Your task to perform on an android device: Open Youtube and go to the subscriptions tab Image 0: 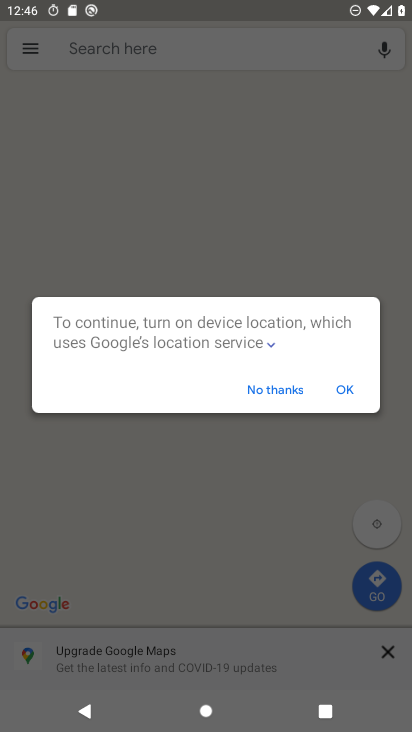
Step 0: press home button
Your task to perform on an android device: Open Youtube and go to the subscriptions tab Image 1: 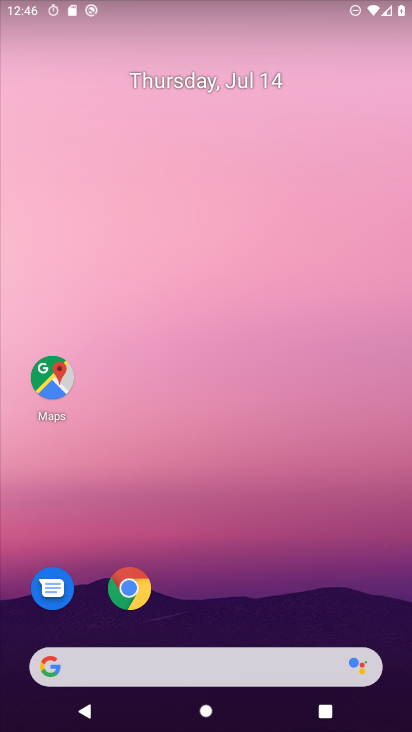
Step 1: drag from (215, 663) to (356, 38)
Your task to perform on an android device: Open Youtube and go to the subscriptions tab Image 2: 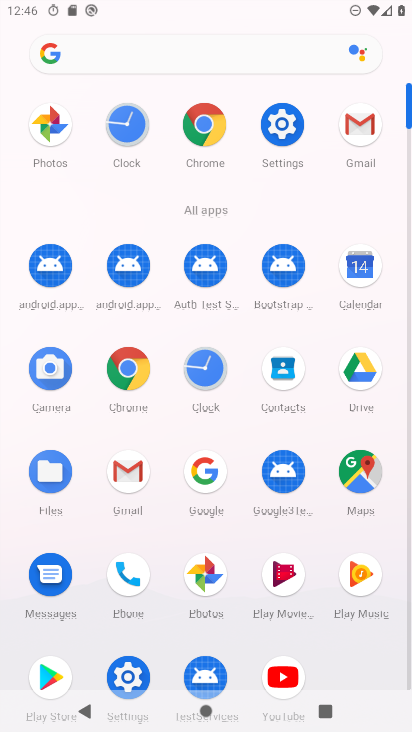
Step 2: click (286, 677)
Your task to perform on an android device: Open Youtube and go to the subscriptions tab Image 3: 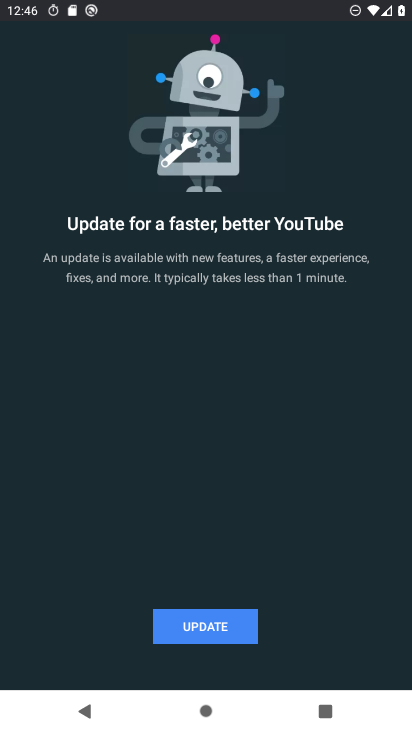
Step 3: click (197, 632)
Your task to perform on an android device: Open Youtube and go to the subscriptions tab Image 4: 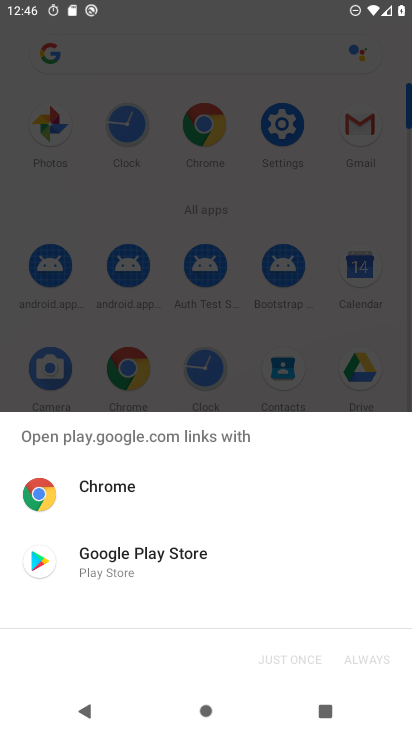
Step 4: click (151, 551)
Your task to perform on an android device: Open Youtube and go to the subscriptions tab Image 5: 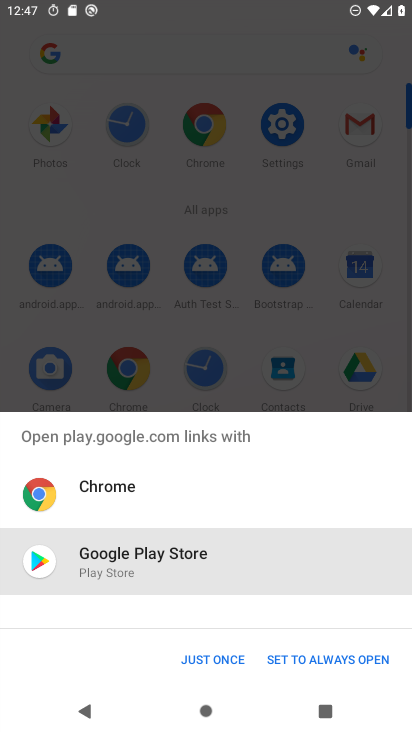
Step 5: click (202, 656)
Your task to perform on an android device: Open Youtube and go to the subscriptions tab Image 6: 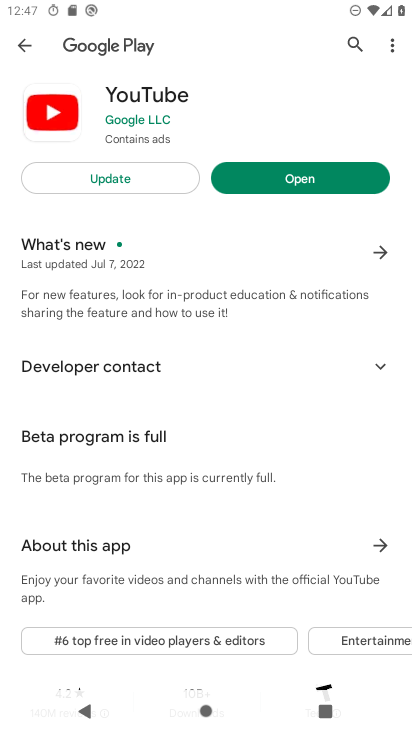
Step 6: click (112, 175)
Your task to perform on an android device: Open Youtube and go to the subscriptions tab Image 7: 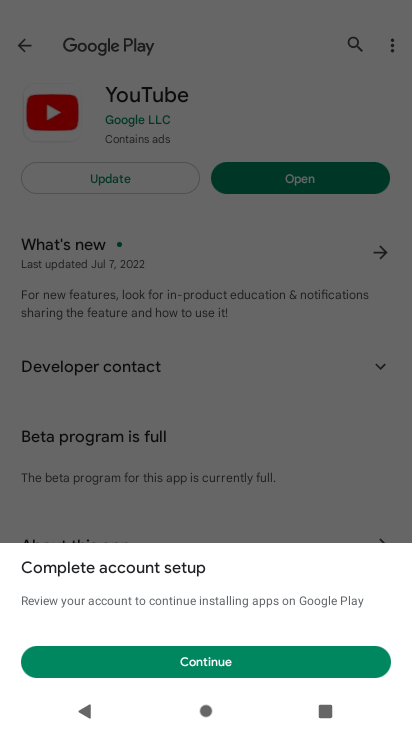
Step 7: click (112, 178)
Your task to perform on an android device: Open Youtube and go to the subscriptions tab Image 8: 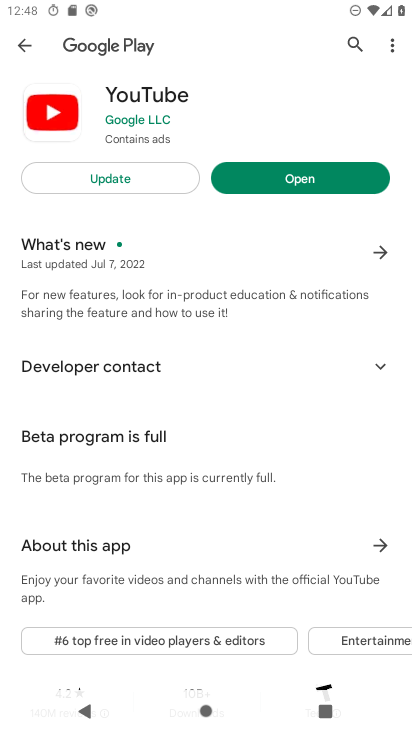
Step 8: click (311, 184)
Your task to perform on an android device: Open Youtube and go to the subscriptions tab Image 9: 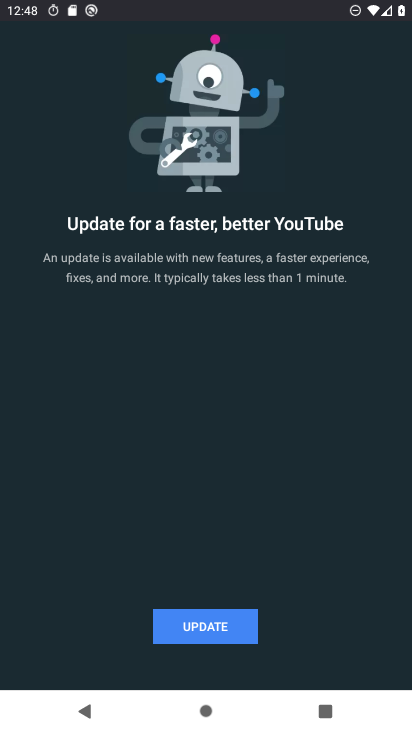
Step 9: click (224, 617)
Your task to perform on an android device: Open Youtube and go to the subscriptions tab Image 10: 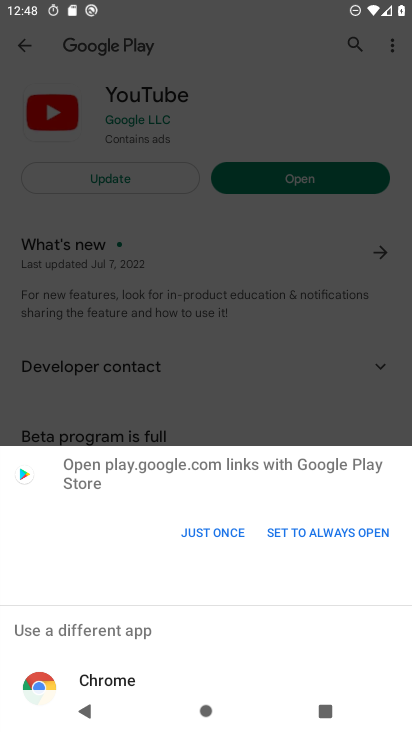
Step 10: click (220, 528)
Your task to perform on an android device: Open Youtube and go to the subscriptions tab Image 11: 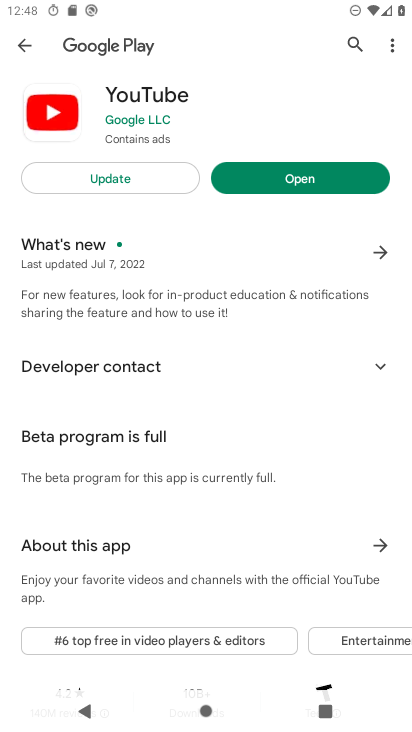
Step 11: click (104, 175)
Your task to perform on an android device: Open Youtube and go to the subscriptions tab Image 12: 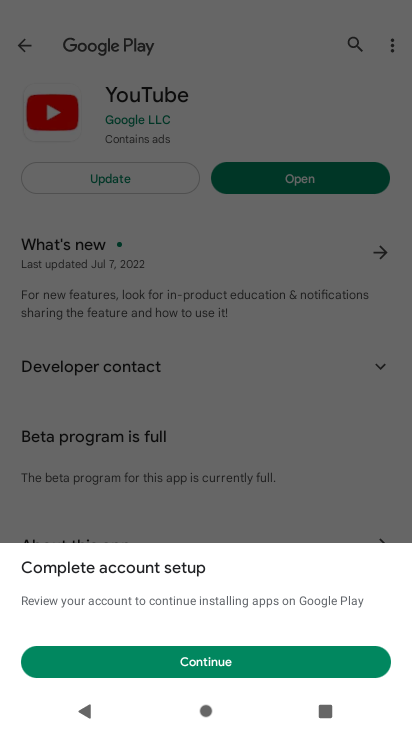
Step 12: click (247, 664)
Your task to perform on an android device: Open Youtube and go to the subscriptions tab Image 13: 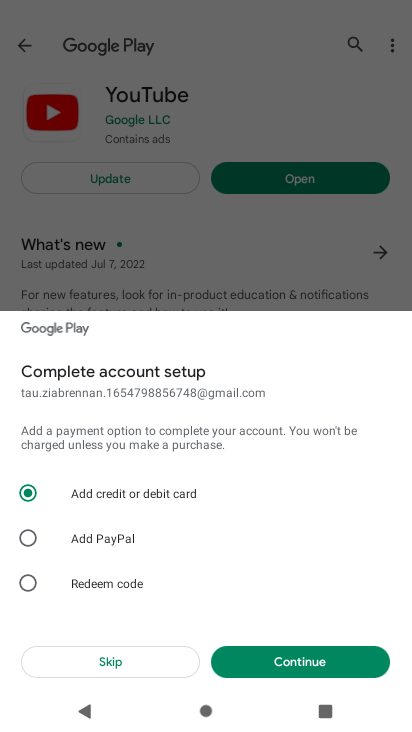
Step 13: click (101, 657)
Your task to perform on an android device: Open Youtube and go to the subscriptions tab Image 14: 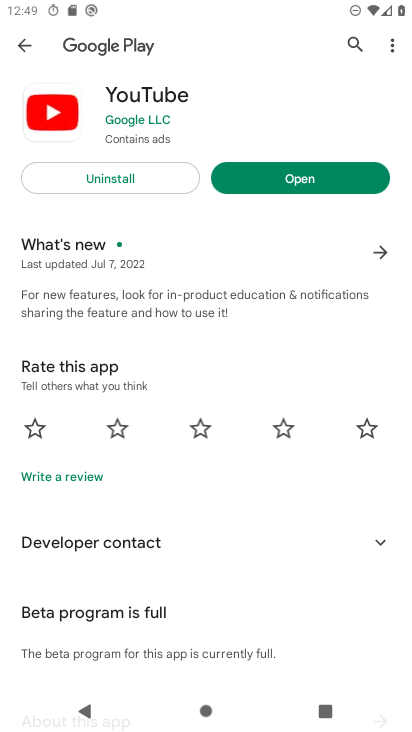
Step 14: click (306, 182)
Your task to perform on an android device: Open Youtube and go to the subscriptions tab Image 15: 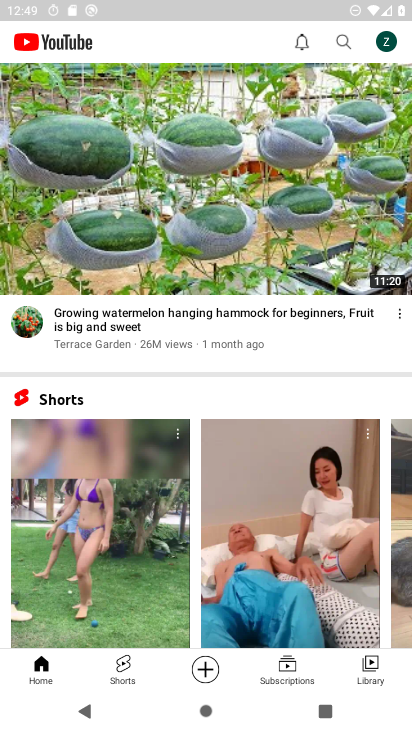
Step 15: click (287, 670)
Your task to perform on an android device: Open Youtube and go to the subscriptions tab Image 16: 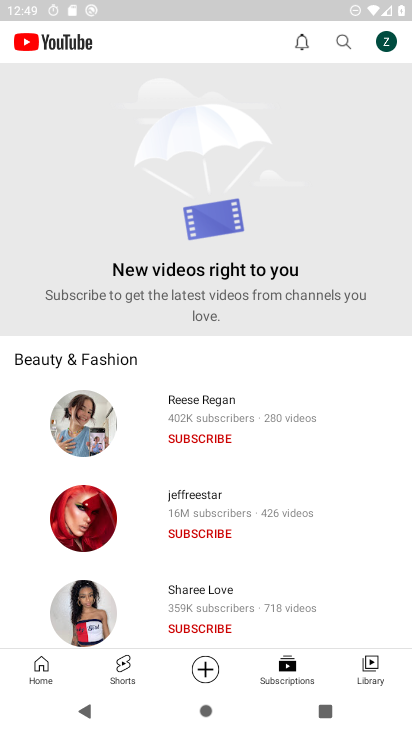
Step 16: task complete